Your task to perform on an android device: toggle javascript in the chrome app Image 0: 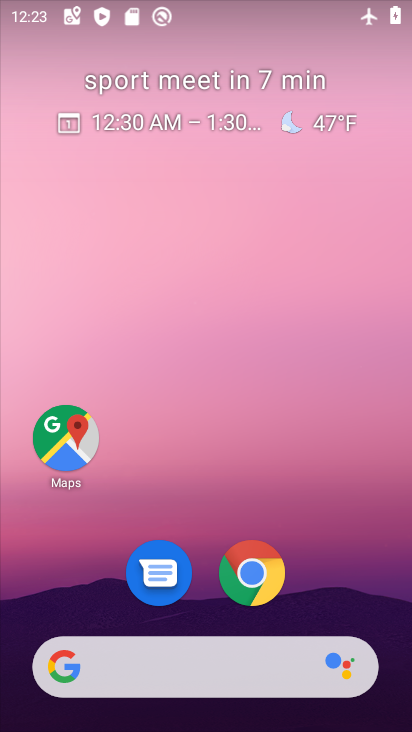
Step 0: drag from (212, 583) to (304, 153)
Your task to perform on an android device: toggle javascript in the chrome app Image 1: 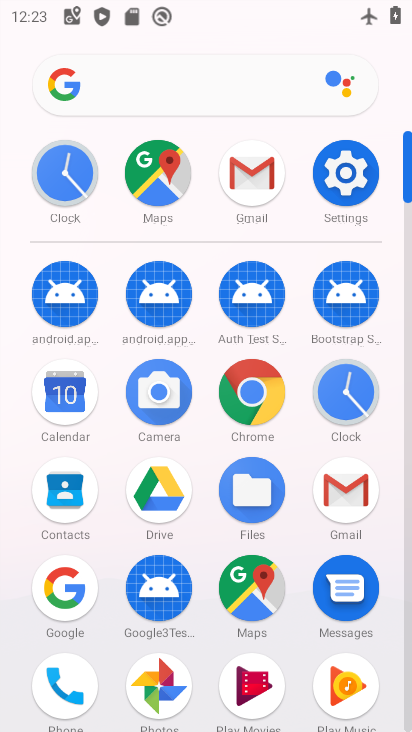
Step 1: click (242, 380)
Your task to perform on an android device: toggle javascript in the chrome app Image 2: 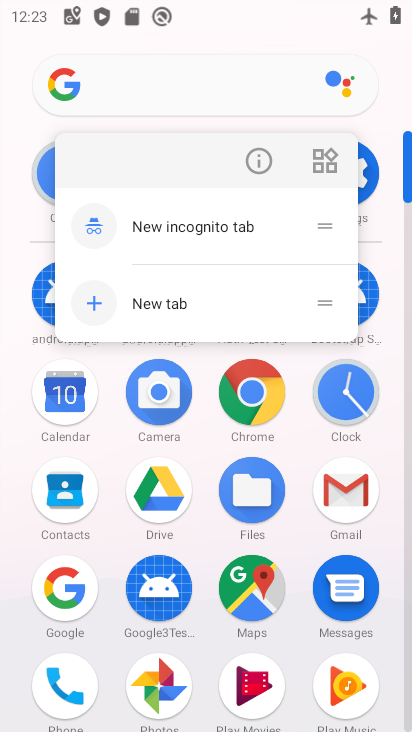
Step 2: click (267, 159)
Your task to perform on an android device: toggle javascript in the chrome app Image 3: 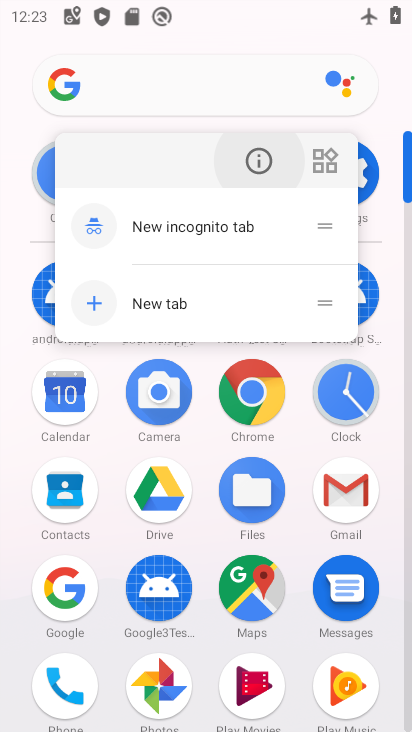
Step 3: click (267, 159)
Your task to perform on an android device: toggle javascript in the chrome app Image 4: 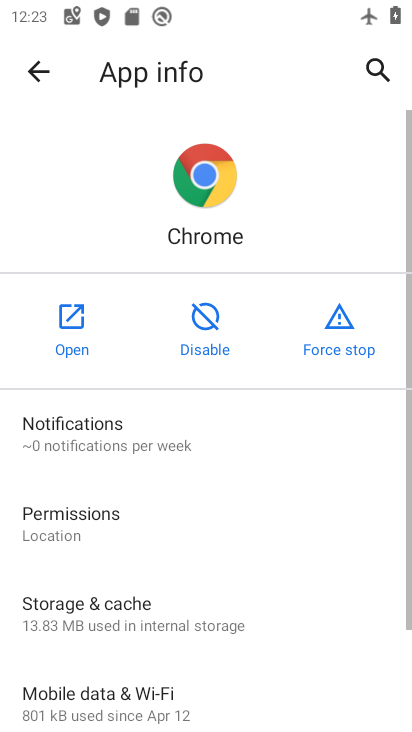
Step 4: click (73, 329)
Your task to perform on an android device: toggle javascript in the chrome app Image 5: 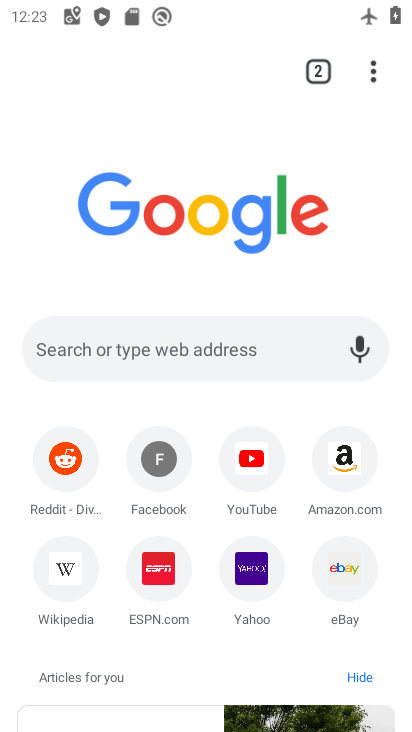
Step 5: click (367, 53)
Your task to perform on an android device: toggle javascript in the chrome app Image 6: 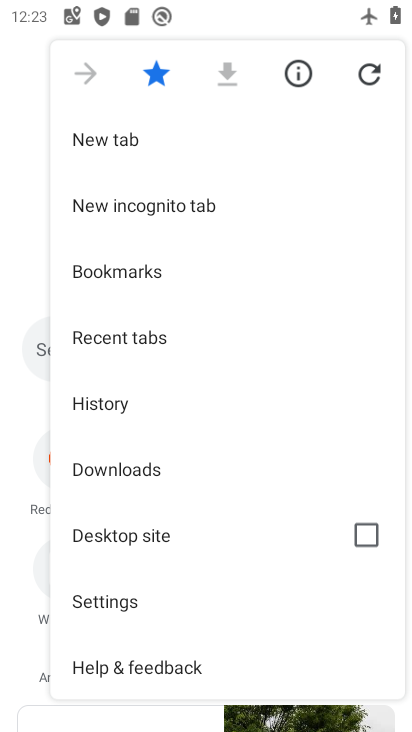
Step 6: click (166, 611)
Your task to perform on an android device: toggle javascript in the chrome app Image 7: 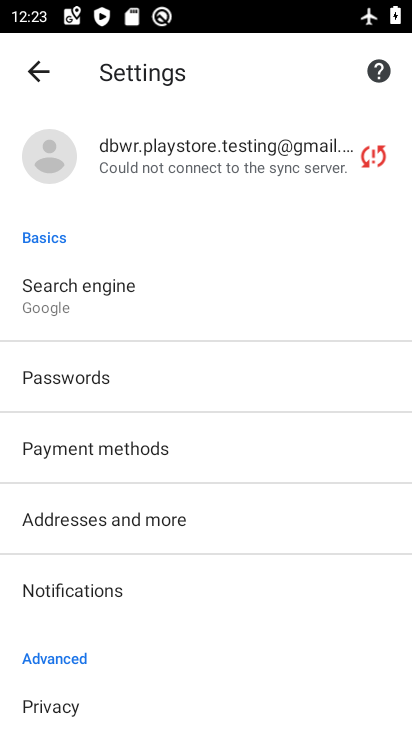
Step 7: drag from (126, 631) to (137, 270)
Your task to perform on an android device: toggle javascript in the chrome app Image 8: 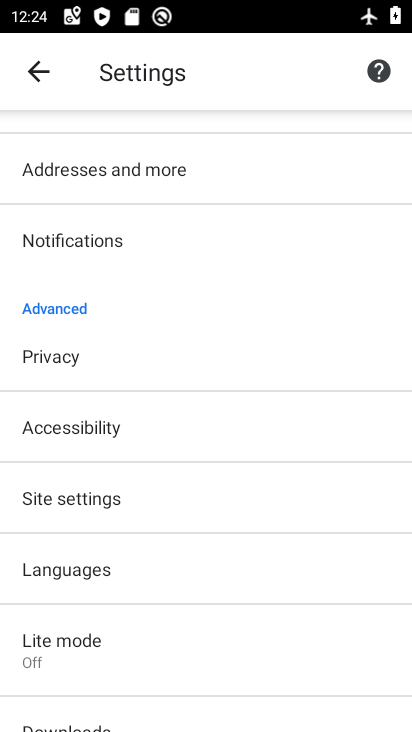
Step 8: drag from (171, 612) to (187, 273)
Your task to perform on an android device: toggle javascript in the chrome app Image 9: 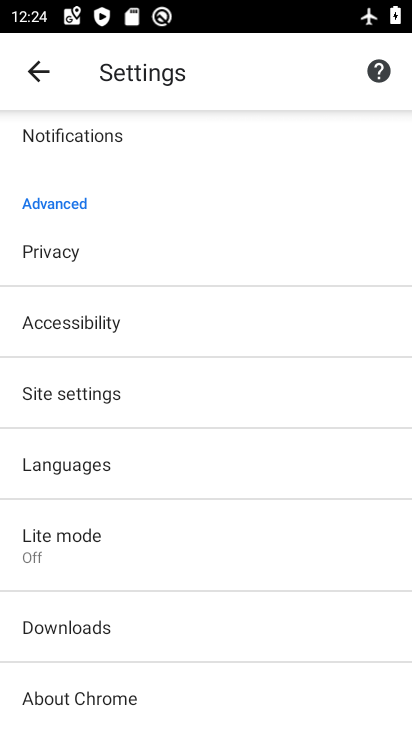
Step 9: click (110, 406)
Your task to perform on an android device: toggle javascript in the chrome app Image 10: 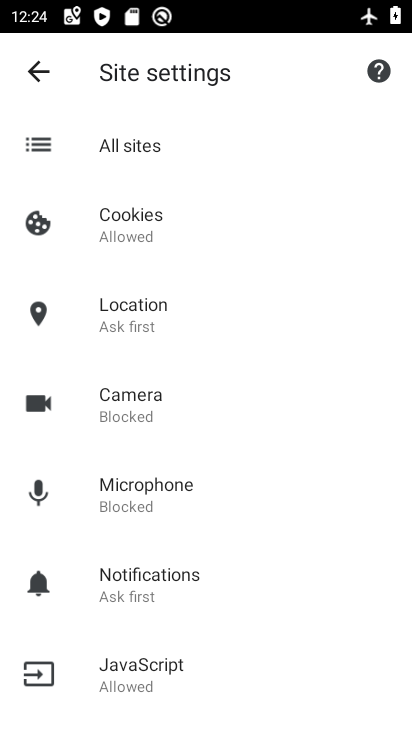
Step 10: drag from (184, 613) to (202, 301)
Your task to perform on an android device: toggle javascript in the chrome app Image 11: 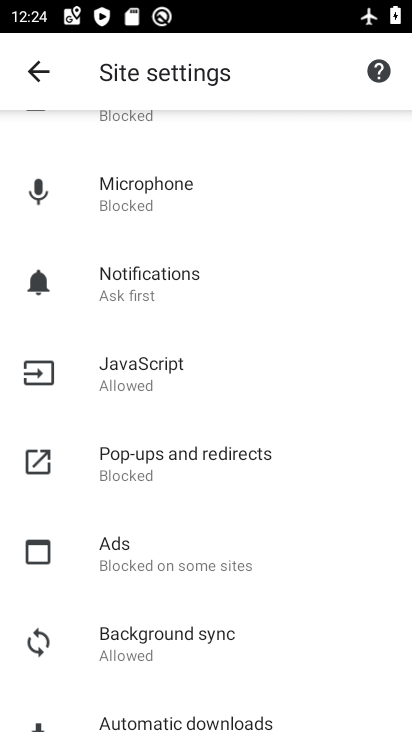
Step 11: click (181, 385)
Your task to perform on an android device: toggle javascript in the chrome app Image 12: 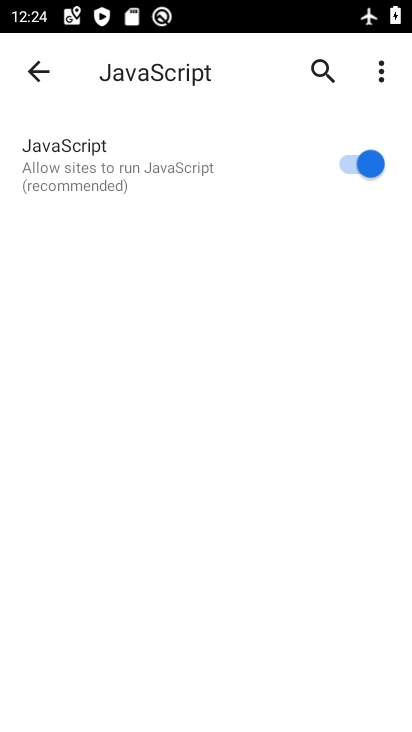
Step 12: click (368, 157)
Your task to perform on an android device: toggle javascript in the chrome app Image 13: 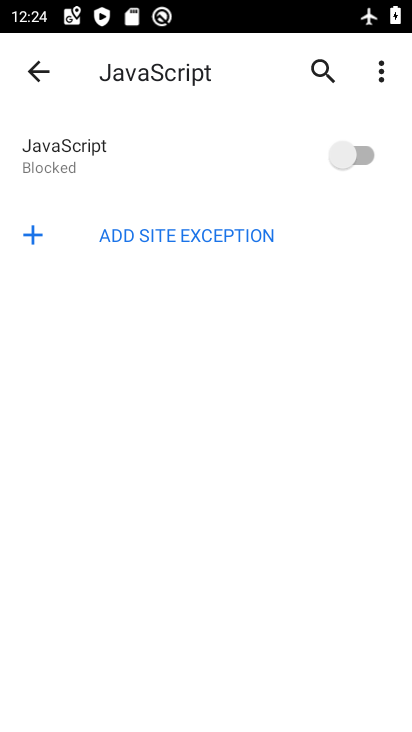
Step 13: task complete